Your task to perform on an android device: Go to calendar. Show me events next week Image 0: 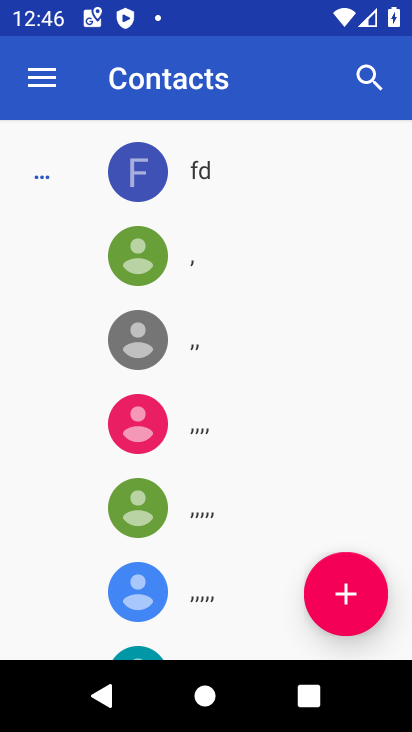
Step 0: press home button
Your task to perform on an android device: Go to calendar. Show me events next week Image 1: 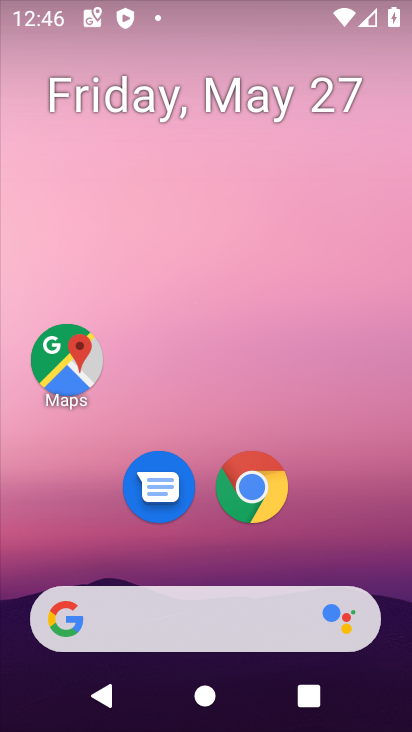
Step 1: drag from (208, 568) to (240, 112)
Your task to perform on an android device: Go to calendar. Show me events next week Image 2: 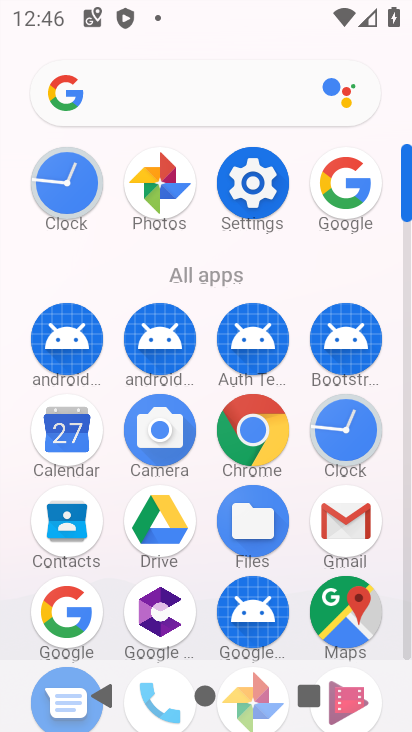
Step 2: click (62, 450)
Your task to perform on an android device: Go to calendar. Show me events next week Image 3: 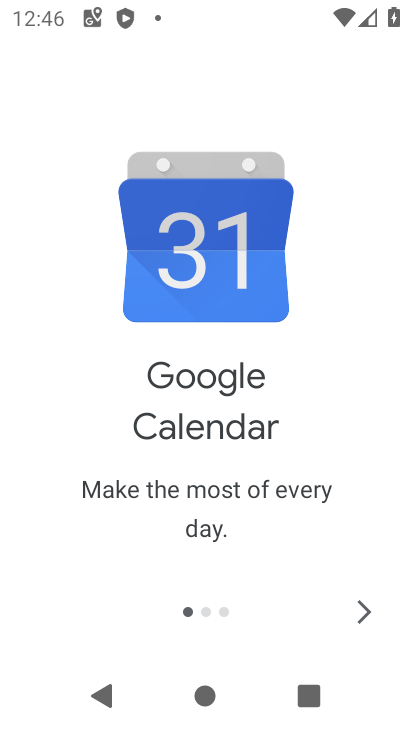
Step 3: click (372, 615)
Your task to perform on an android device: Go to calendar. Show me events next week Image 4: 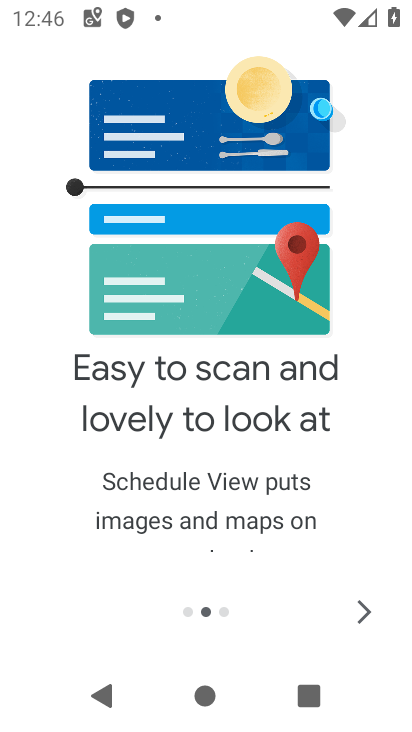
Step 4: click (372, 615)
Your task to perform on an android device: Go to calendar. Show me events next week Image 5: 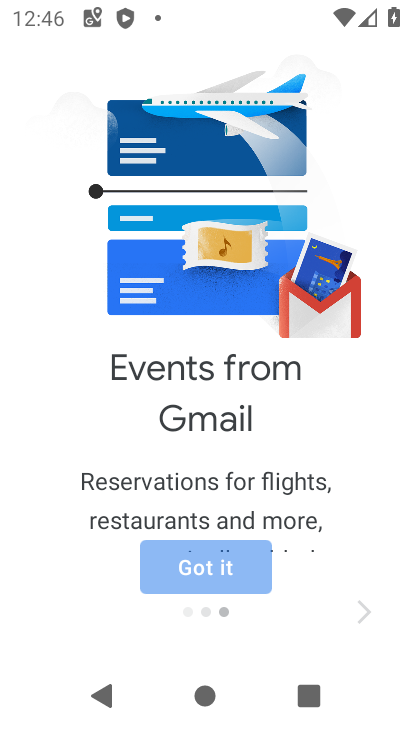
Step 5: click (372, 615)
Your task to perform on an android device: Go to calendar. Show me events next week Image 6: 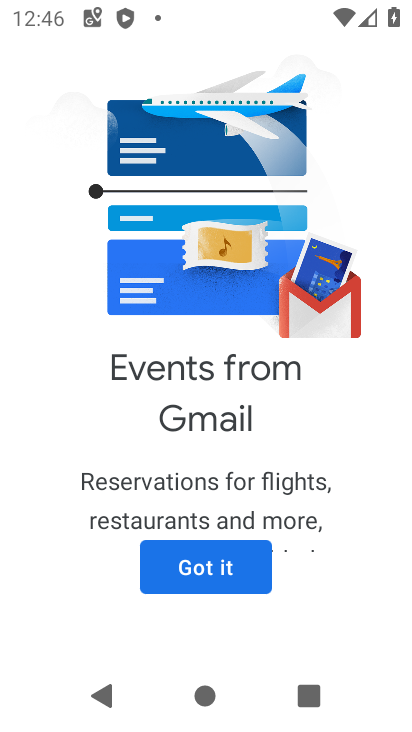
Step 6: click (219, 583)
Your task to perform on an android device: Go to calendar. Show me events next week Image 7: 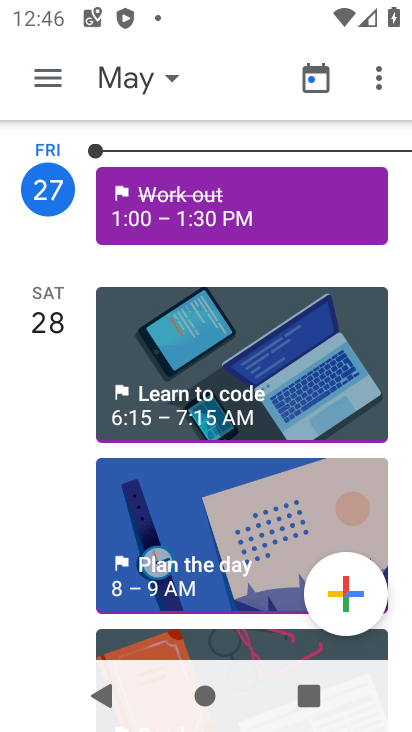
Step 7: click (165, 80)
Your task to perform on an android device: Go to calendar. Show me events next week Image 8: 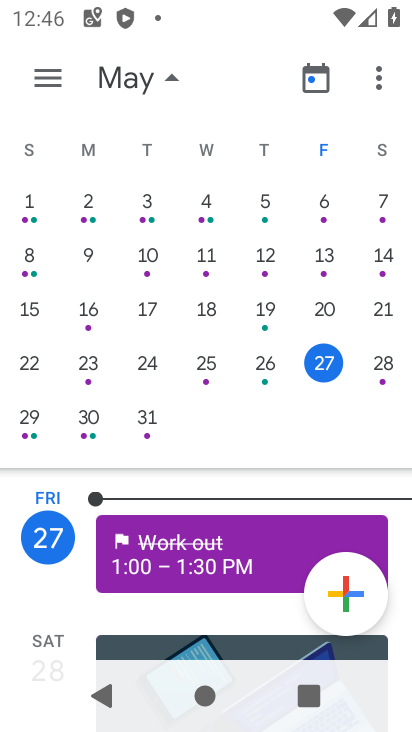
Step 8: click (140, 418)
Your task to perform on an android device: Go to calendar. Show me events next week Image 9: 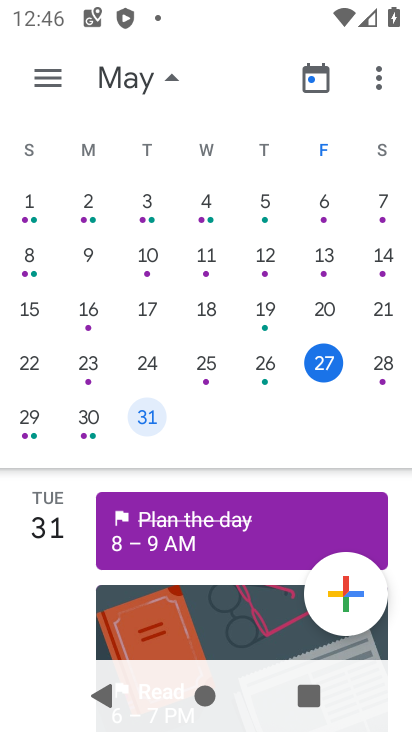
Step 9: task complete